Your task to perform on an android device: toggle notification dots Image 0: 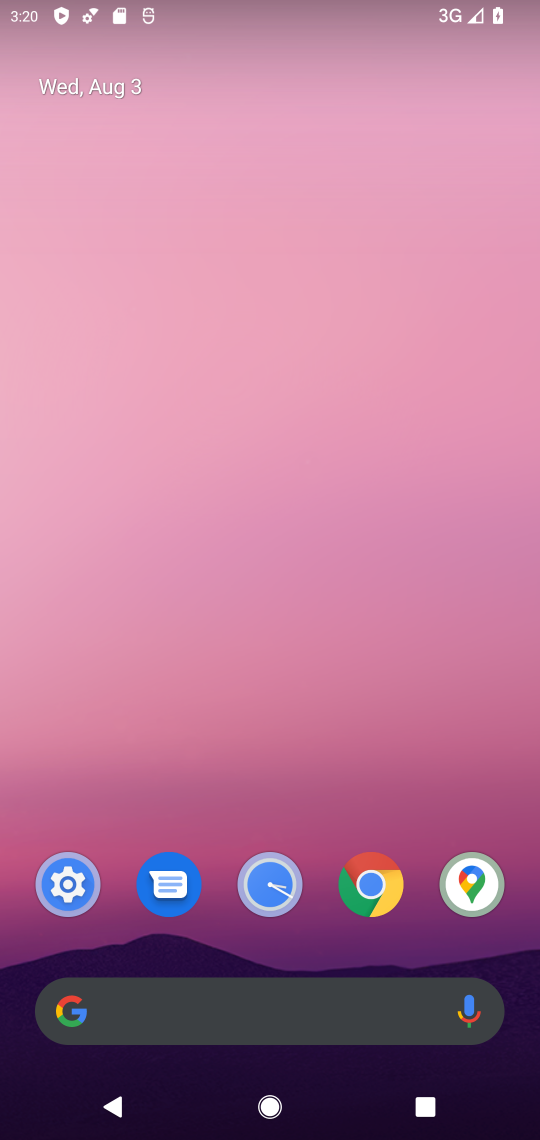
Step 0: click (73, 902)
Your task to perform on an android device: toggle notification dots Image 1: 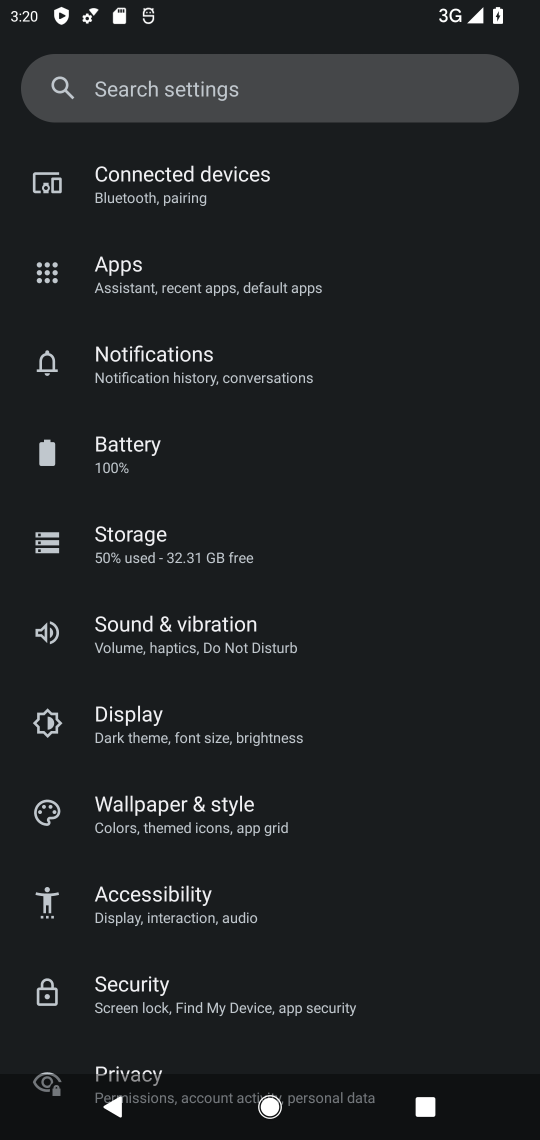
Step 1: task complete